Your task to perform on an android device: change the upload size in google photos Image 0: 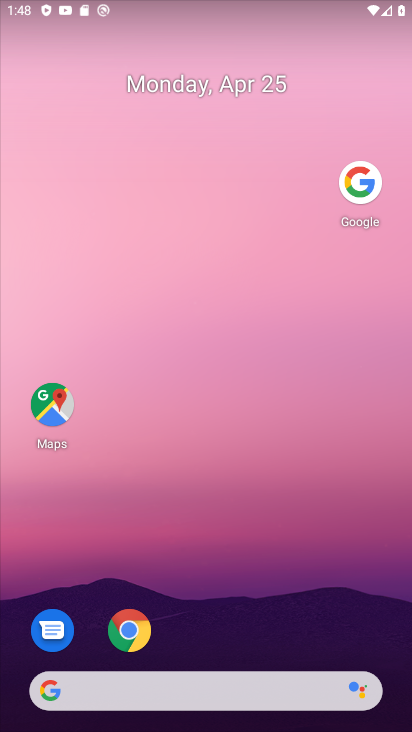
Step 0: drag from (188, 658) to (151, 71)
Your task to perform on an android device: change the upload size in google photos Image 1: 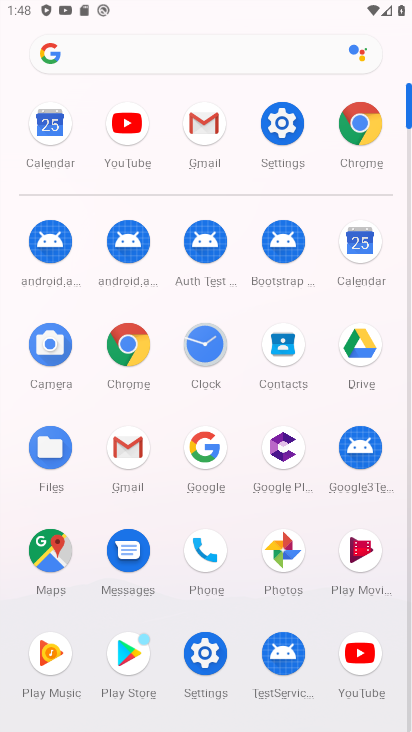
Step 1: click (274, 548)
Your task to perform on an android device: change the upload size in google photos Image 2: 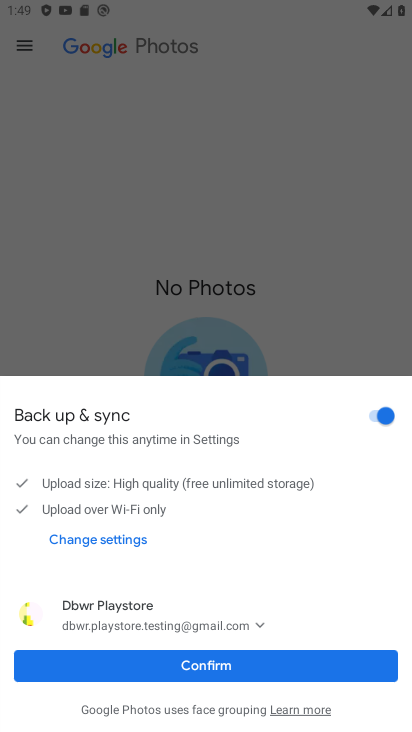
Step 2: click (112, 535)
Your task to perform on an android device: change the upload size in google photos Image 3: 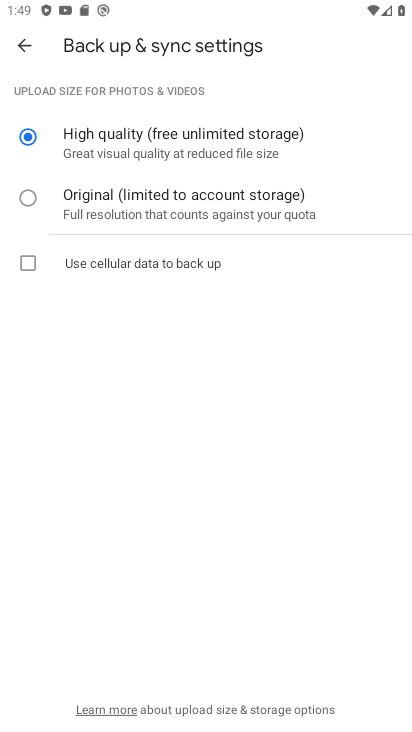
Step 3: click (106, 213)
Your task to perform on an android device: change the upload size in google photos Image 4: 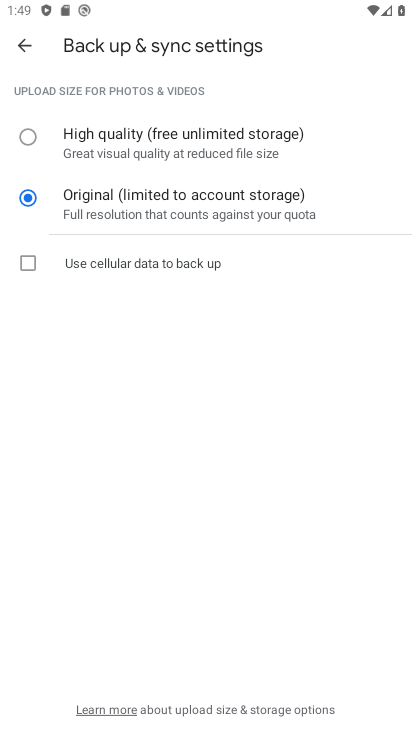
Step 4: click (37, 39)
Your task to perform on an android device: change the upload size in google photos Image 5: 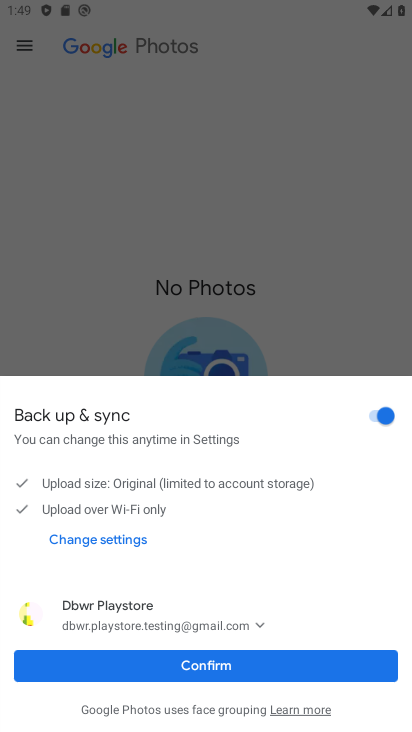
Step 5: click (158, 648)
Your task to perform on an android device: change the upload size in google photos Image 6: 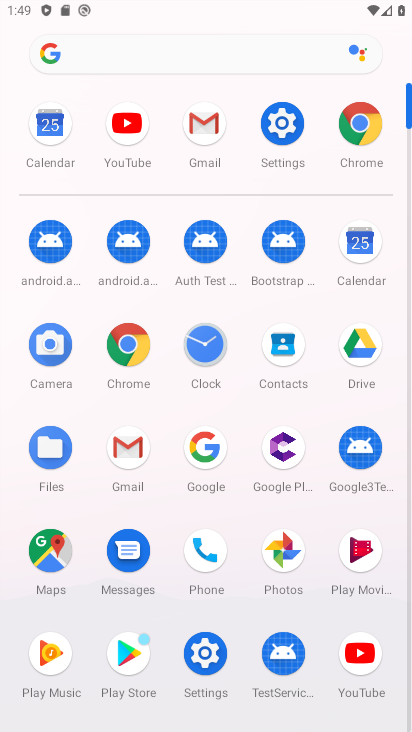
Step 6: task complete